Your task to perform on an android device: Open calendar and show me the second week of next month Image 0: 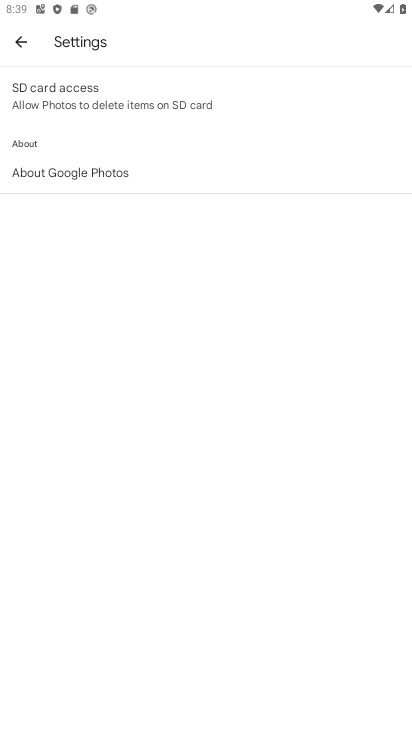
Step 0: press home button
Your task to perform on an android device: Open calendar and show me the second week of next month Image 1: 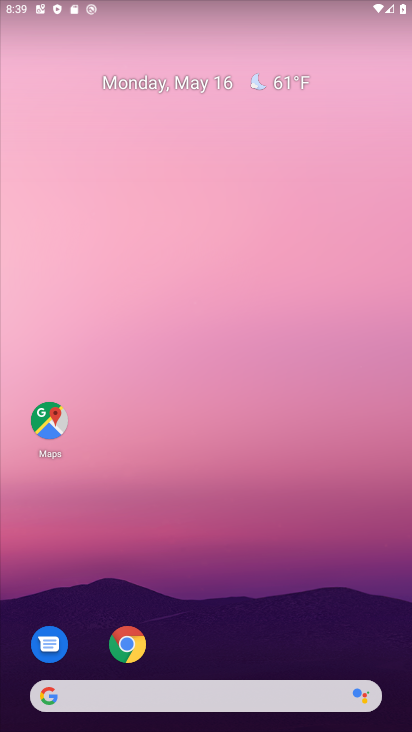
Step 1: drag from (262, 627) to (300, 147)
Your task to perform on an android device: Open calendar and show me the second week of next month Image 2: 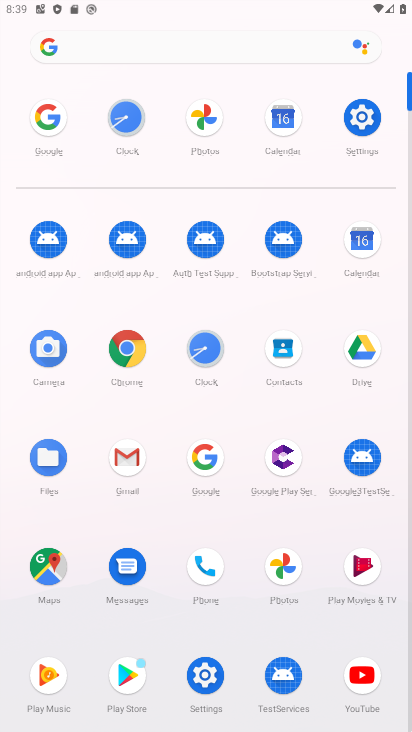
Step 2: click (364, 241)
Your task to perform on an android device: Open calendar and show me the second week of next month Image 3: 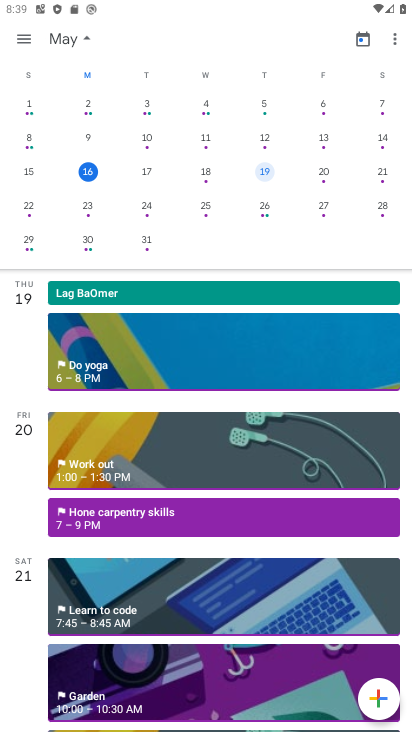
Step 3: drag from (373, 241) to (23, 223)
Your task to perform on an android device: Open calendar and show me the second week of next month Image 4: 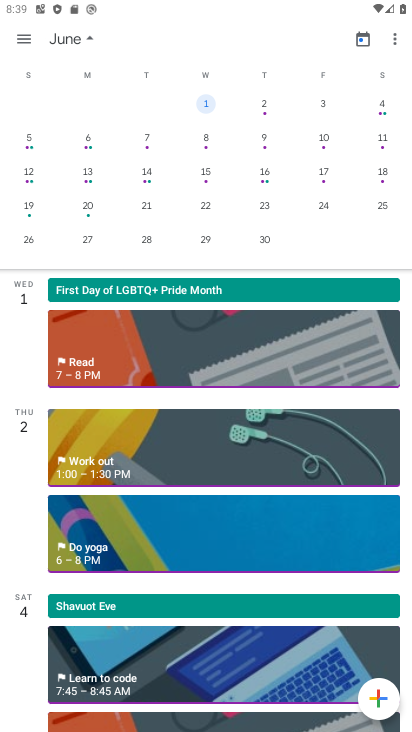
Step 4: click (264, 138)
Your task to perform on an android device: Open calendar and show me the second week of next month Image 5: 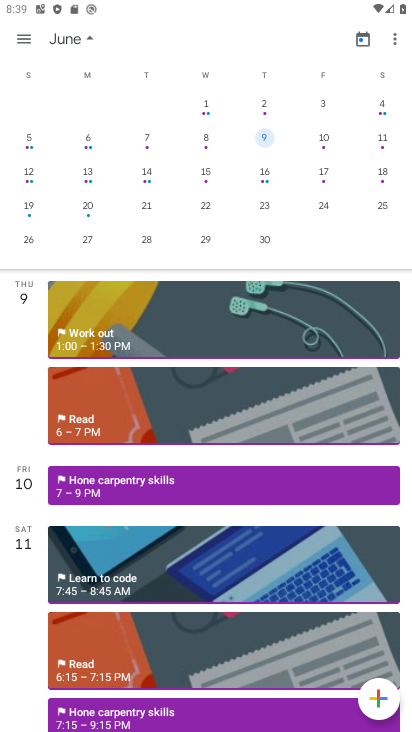
Step 5: task complete